Your task to perform on an android device: Go to Maps Image 0: 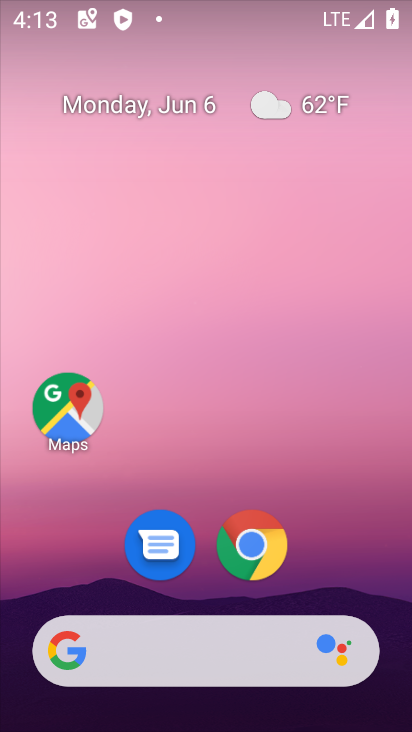
Step 0: drag from (238, 641) to (237, 103)
Your task to perform on an android device: Go to Maps Image 1: 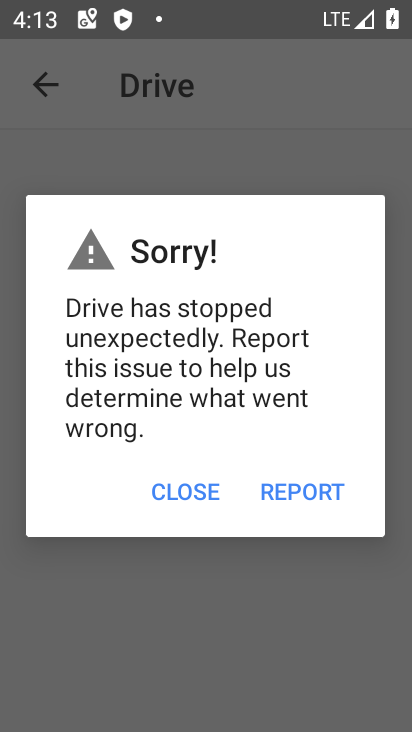
Step 1: press home button
Your task to perform on an android device: Go to Maps Image 2: 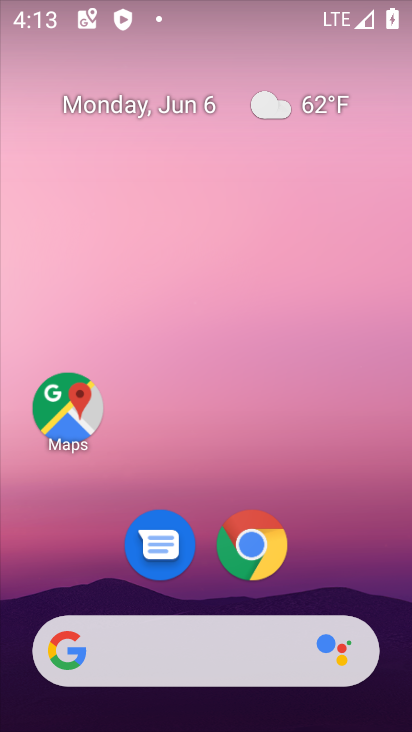
Step 2: drag from (227, 715) to (220, 112)
Your task to perform on an android device: Go to Maps Image 3: 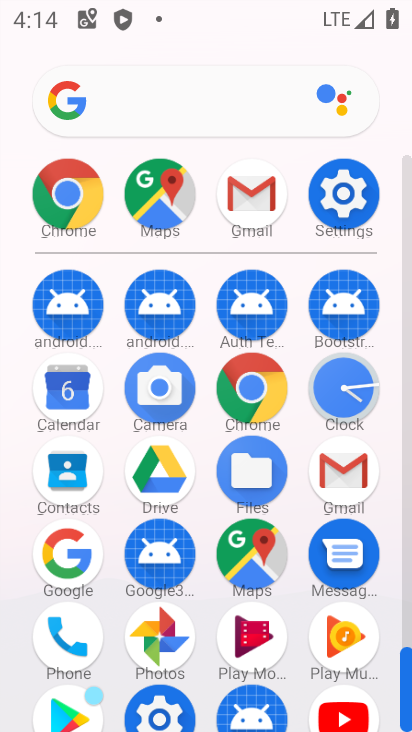
Step 3: click (259, 543)
Your task to perform on an android device: Go to Maps Image 4: 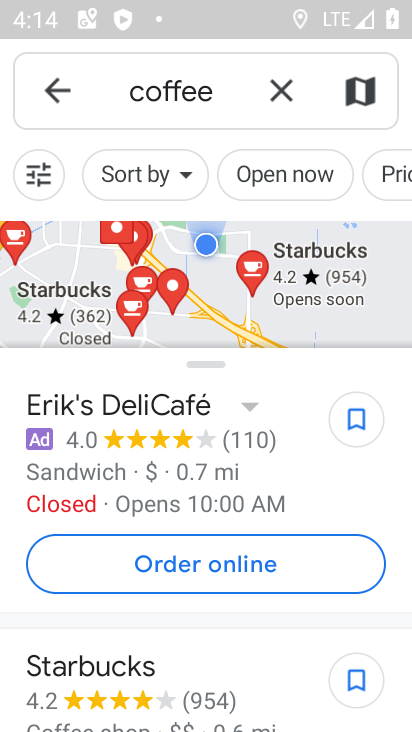
Step 4: task complete